Your task to perform on an android device: Open calendar and show me the first week of next month Image 0: 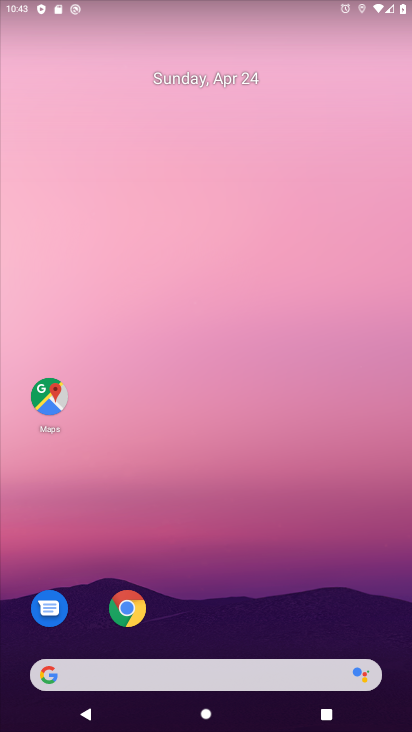
Step 0: drag from (397, 670) to (321, 12)
Your task to perform on an android device: Open calendar and show me the first week of next month Image 1: 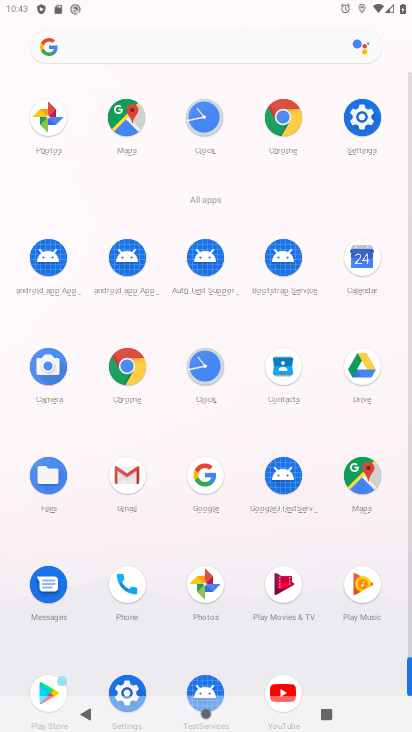
Step 1: drag from (409, 646) to (409, 587)
Your task to perform on an android device: Open calendar and show me the first week of next month Image 2: 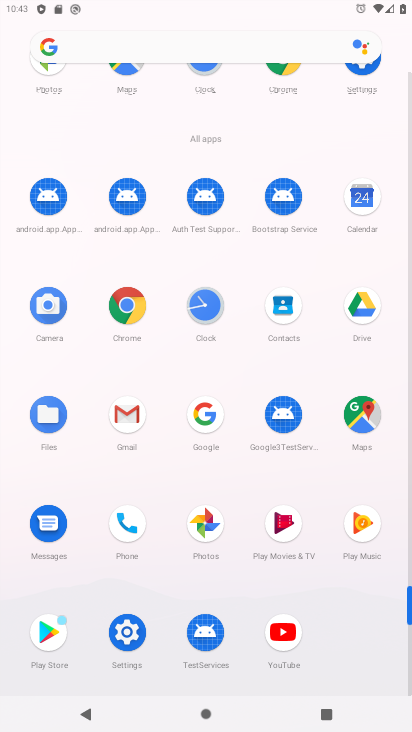
Step 2: click (358, 195)
Your task to perform on an android device: Open calendar and show me the first week of next month Image 3: 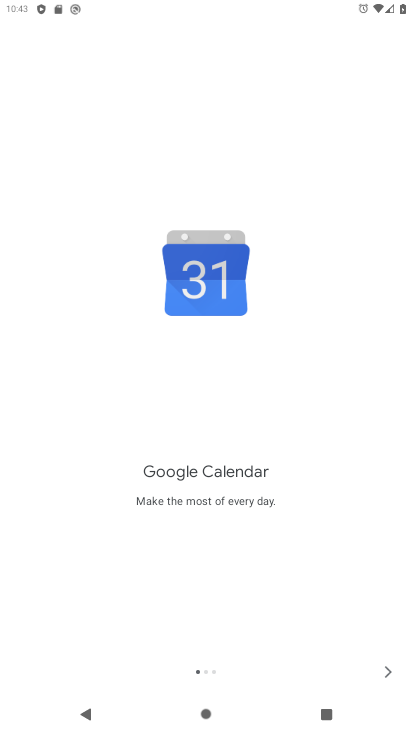
Step 3: click (387, 668)
Your task to perform on an android device: Open calendar and show me the first week of next month Image 4: 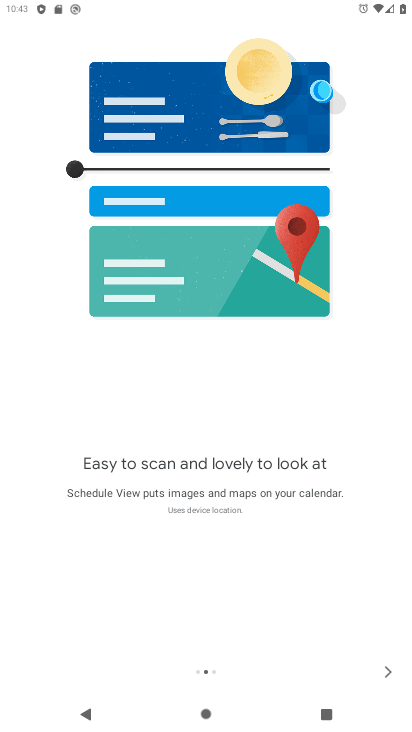
Step 4: click (387, 668)
Your task to perform on an android device: Open calendar and show me the first week of next month Image 5: 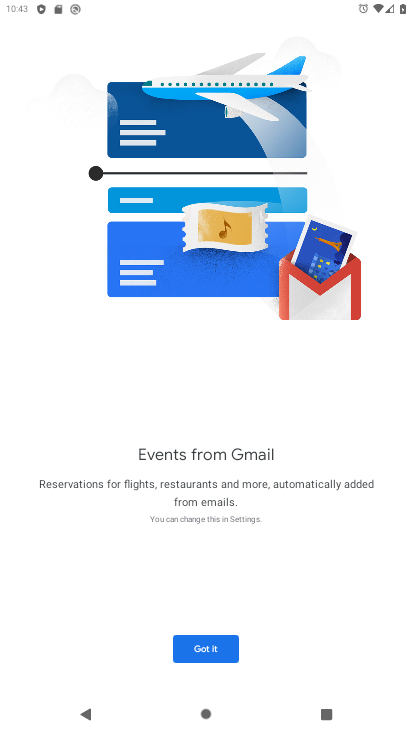
Step 5: click (203, 649)
Your task to perform on an android device: Open calendar and show me the first week of next month Image 6: 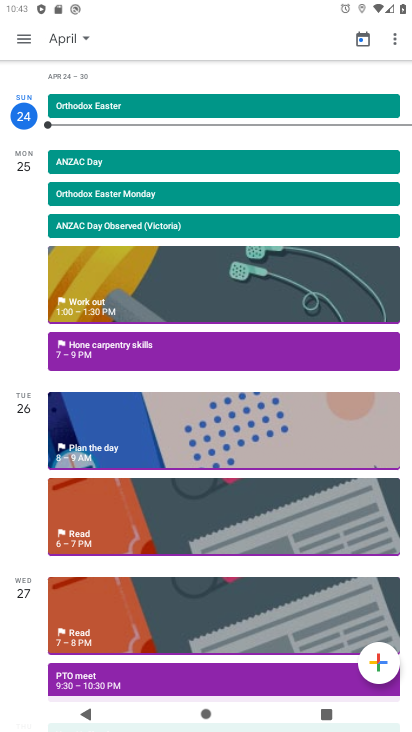
Step 6: click (17, 35)
Your task to perform on an android device: Open calendar and show me the first week of next month Image 7: 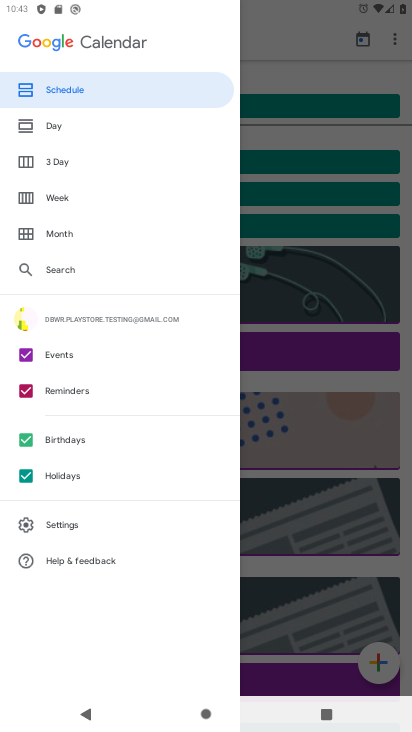
Step 7: click (52, 193)
Your task to perform on an android device: Open calendar and show me the first week of next month Image 8: 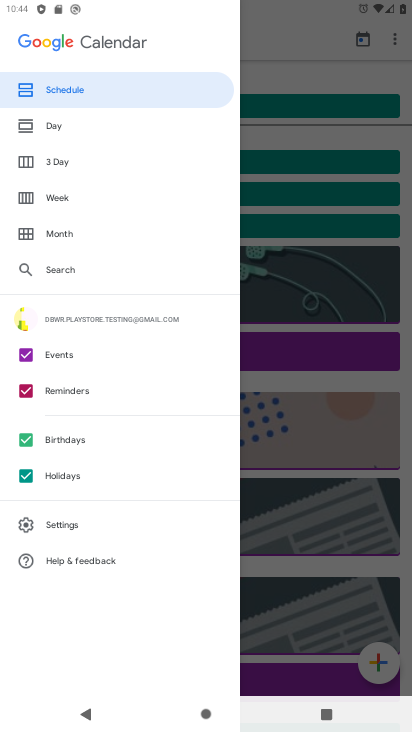
Step 8: click (57, 197)
Your task to perform on an android device: Open calendar and show me the first week of next month Image 9: 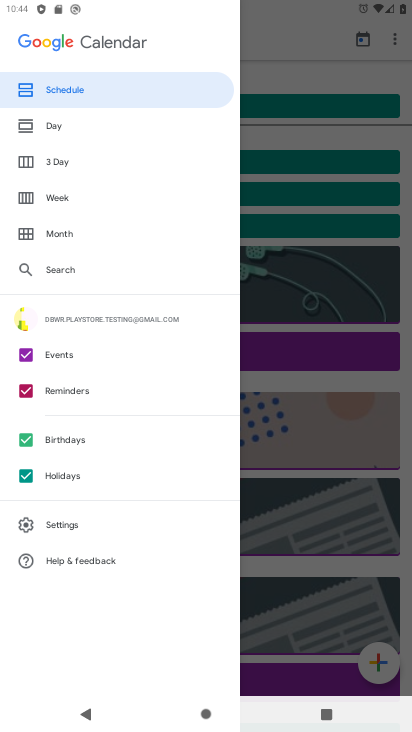
Step 9: click (57, 197)
Your task to perform on an android device: Open calendar and show me the first week of next month Image 10: 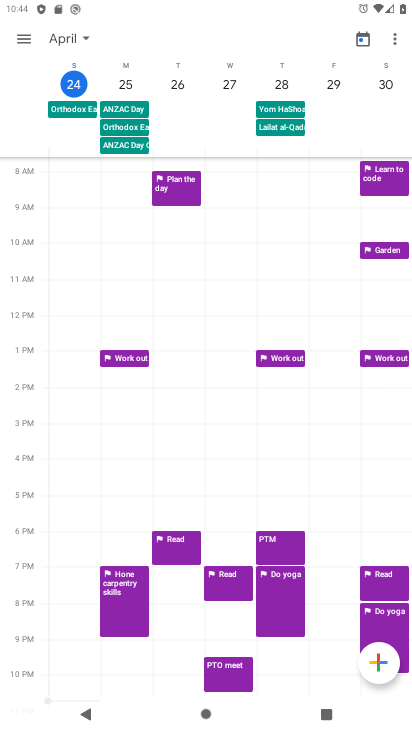
Step 10: click (83, 33)
Your task to perform on an android device: Open calendar and show me the first week of next month Image 11: 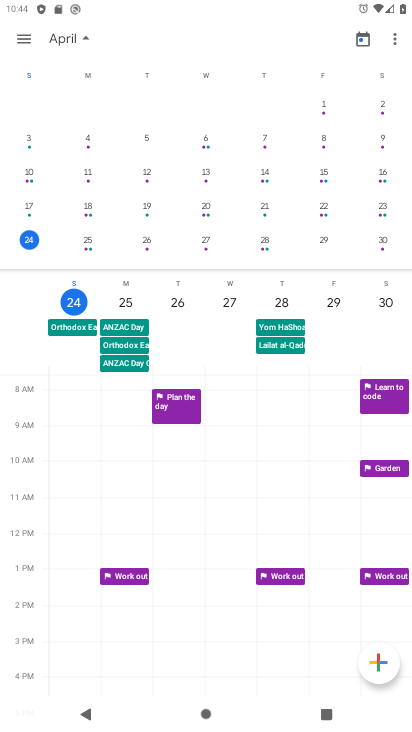
Step 11: task complete